Your task to perform on an android device: toggle sleep mode Image 0: 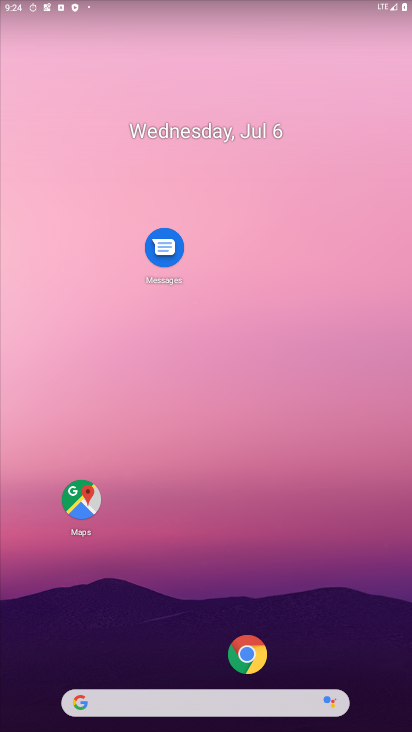
Step 0: drag from (204, 2) to (241, 642)
Your task to perform on an android device: toggle sleep mode Image 1: 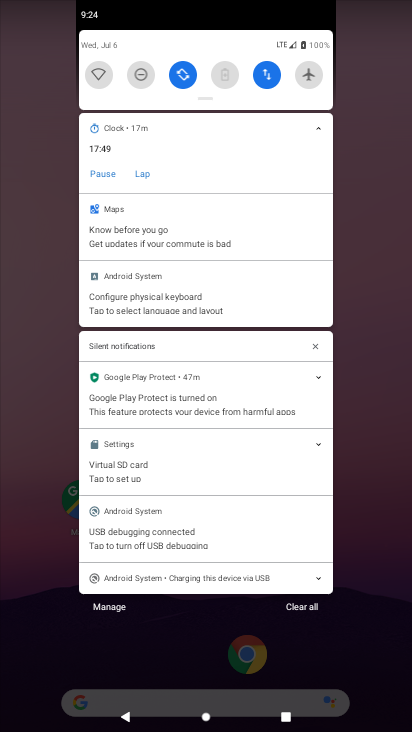
Step 1: drag from (200, 40) to (211, 494)
Your task to perform on an android device: toggle sleep mode Image 2: 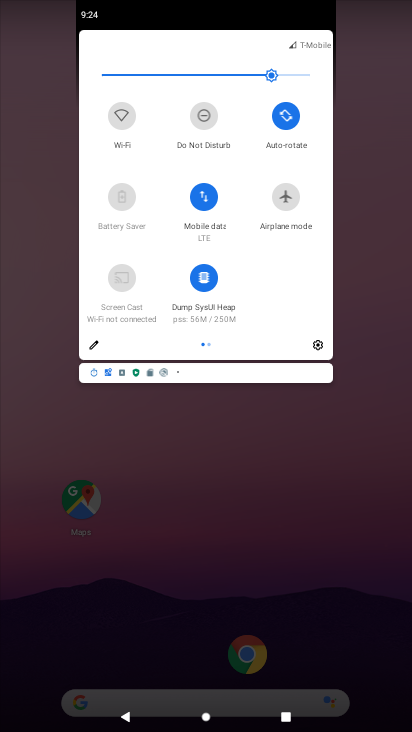
Step 2: click (315, 343)
Your task to perform on an android device: toggle sleep mode Image 3: 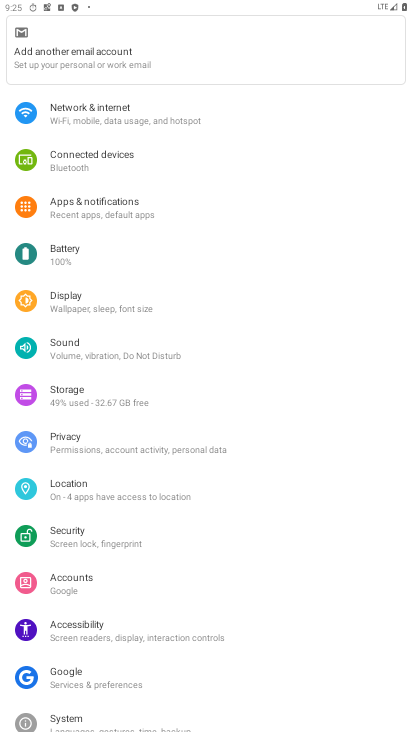
Step 3: task complete